Your task to perform on an android device: What's the weather going to be tomorrow? Image 0: 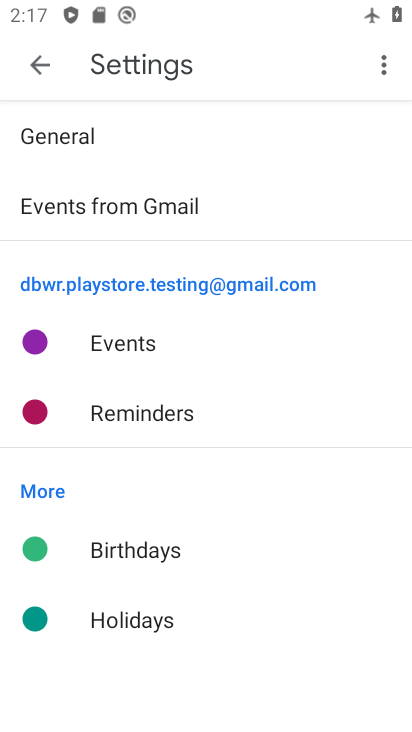
Step 0: press home button
Your task to perform on an android device: What's the weather going to be tomorrow? Image 1: 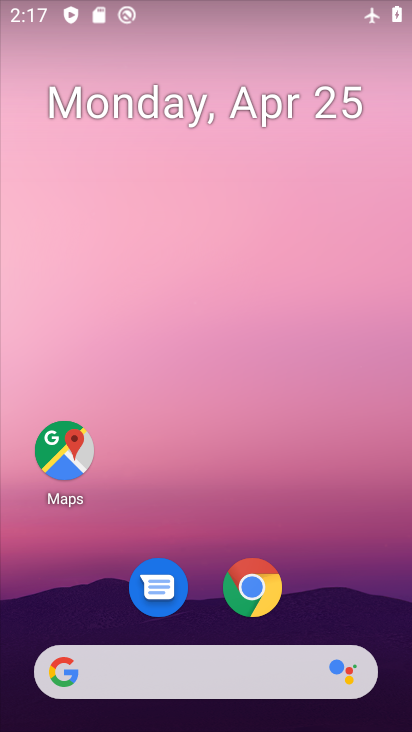
Step 1: drag from (352, 582) to (321, 108)
Your task to perform on an android device: What's the weather going to be tomorrow? Image 2: 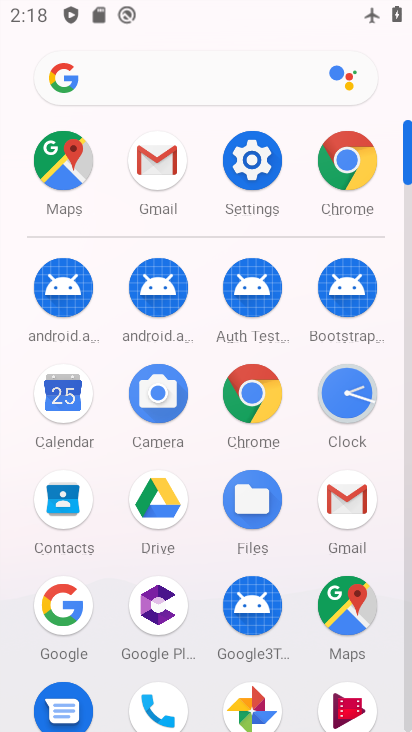
Step 2: press home button
Your task to perform on an android device: What's the weather going to be tomorrow? Image 3: 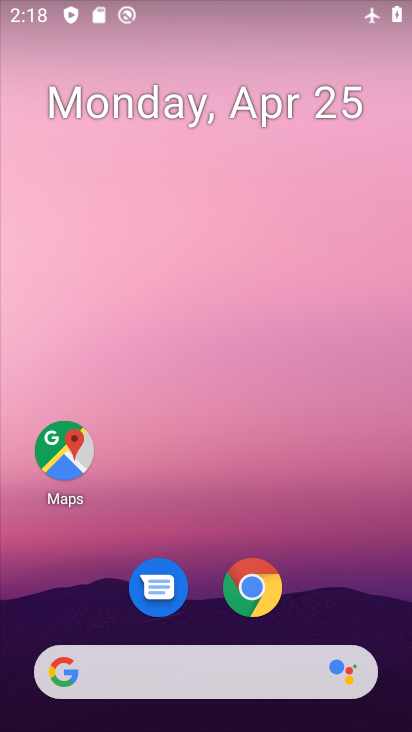
Step 3: drag from (324, 523) to (300, 146)
Your task to perform on an android device: What's the weather going to be tomorrow? Image 4: 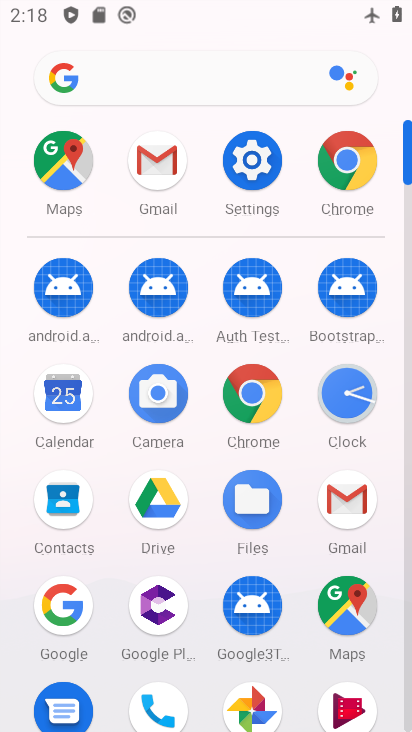
Step 4: click (251, 388)
Your task to perform on an android device: What's the weather going to be tomorrow? Image 5: 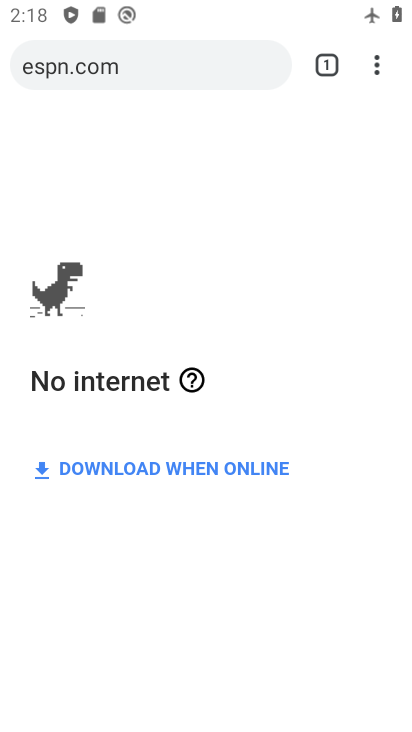
Step 5: click (208, 68)
Your task to perform on an android device: What's the weather going to be tomorrow? Image 6: 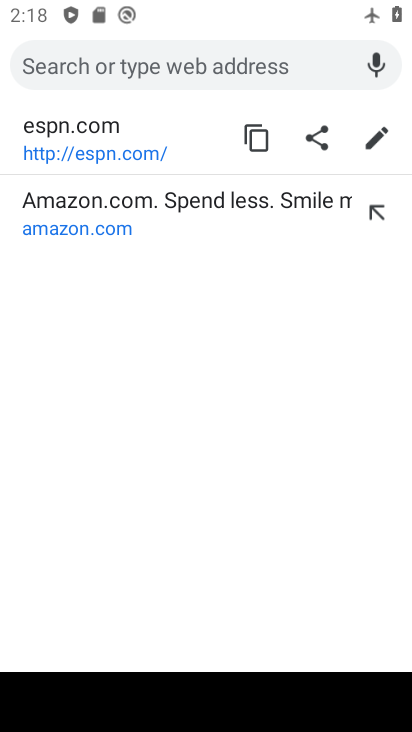
Step 6: type "weather"
Your task to perform on an android device: What's the weather going to be tomorrow? Image 7: 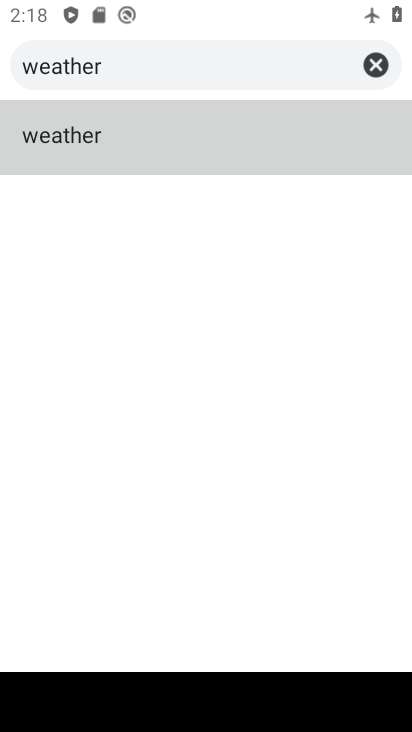
Step 7: click (102, 144)
Your task to perform on an android device: What's the weather going to be tomorrow? Image 8: 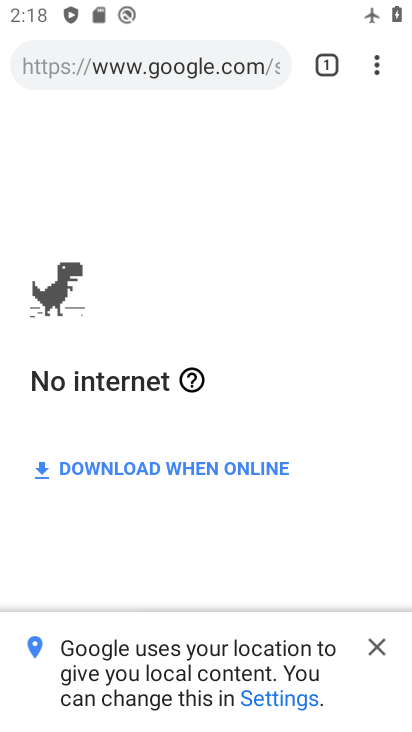
Step 8: task complete